Your task to perform on an android device: toggle sleep mode Image 0: 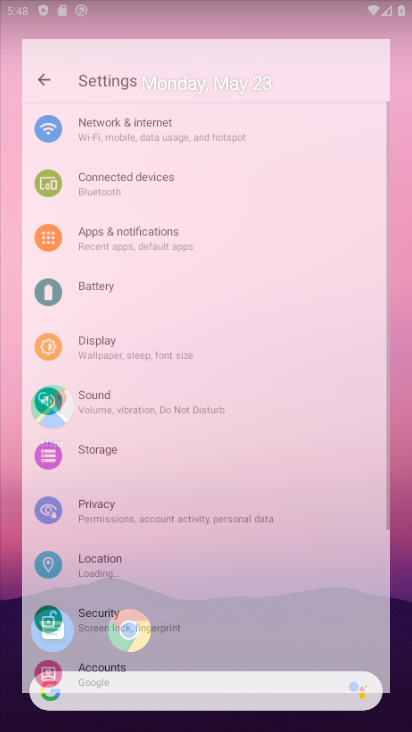
Step 0: drag from (261, 525) to (252, 64)
Your task to perform on an android device: toggle sleep mode Image 1: 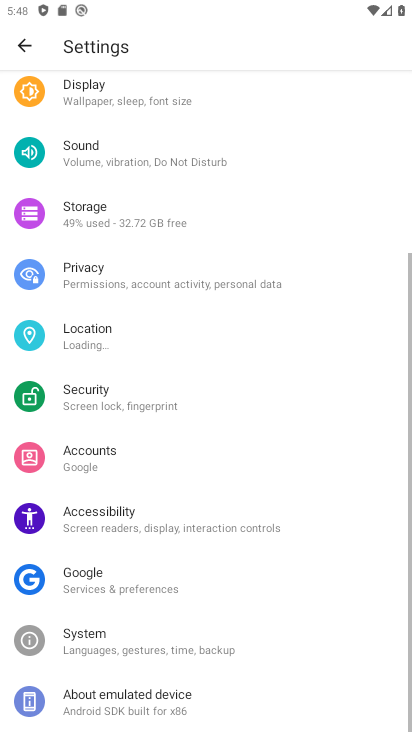
Step 1: press back button
Your task to perform on an android device: toggle sleep mode Image 2: 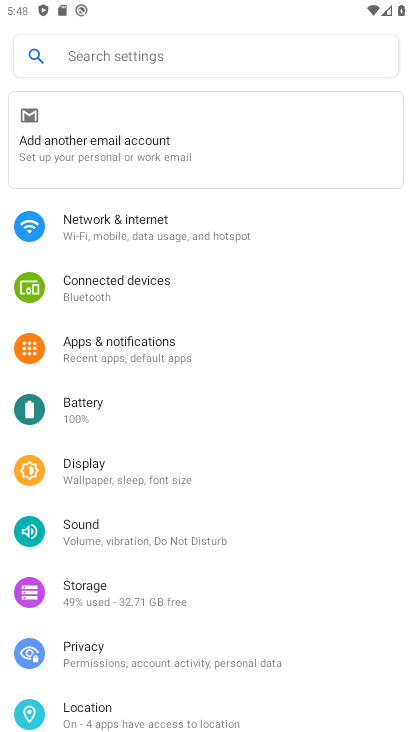
Step 2: drag from (357, 487) to (363, 53)
Your task to perform on an android device: toggle sleep mode Image 3: 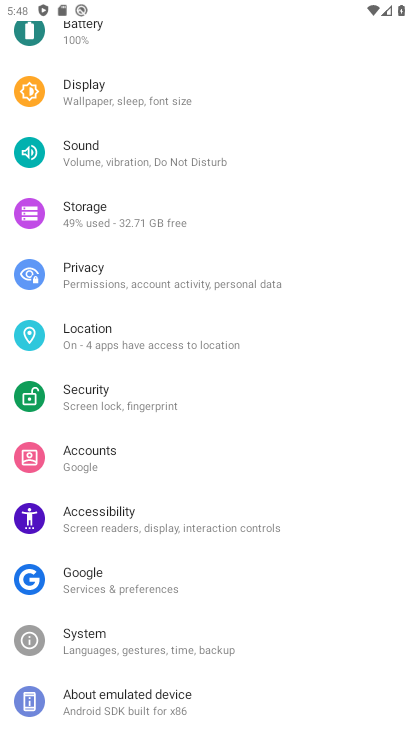
Step 3: drag from (340, 115) to (328, 568)
Your task to perform on an android device: toggle sleep mode Image 4: 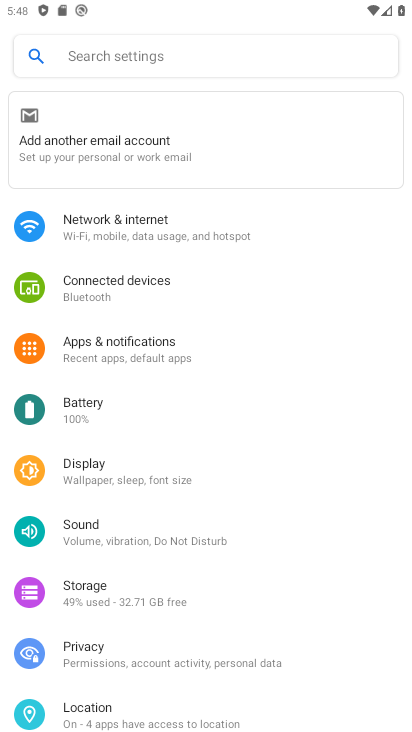
Step 4: click (170, 221)
Your task to perform on an android device: toggle sleep mode Image 5: 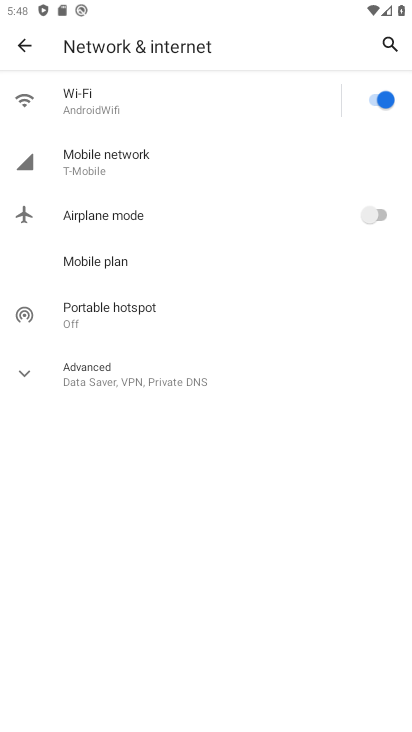
Step 5: click (25, 373)
Your task to perform on an android device: toggle sleep mode Image 6: 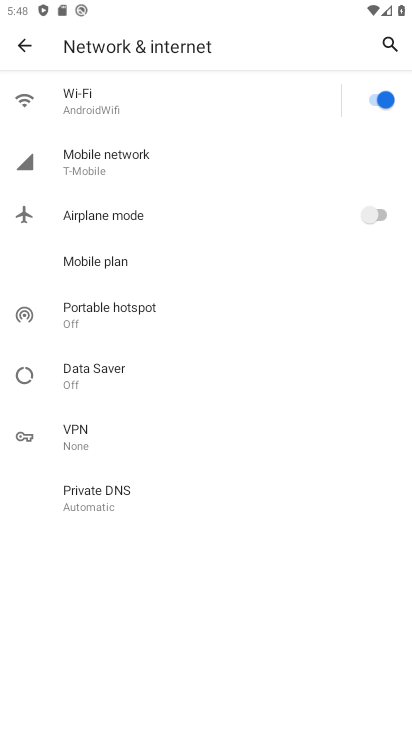
Step 6: click (15, 41)
Your task to perform on an android device: toggle sleep mode Image 7: 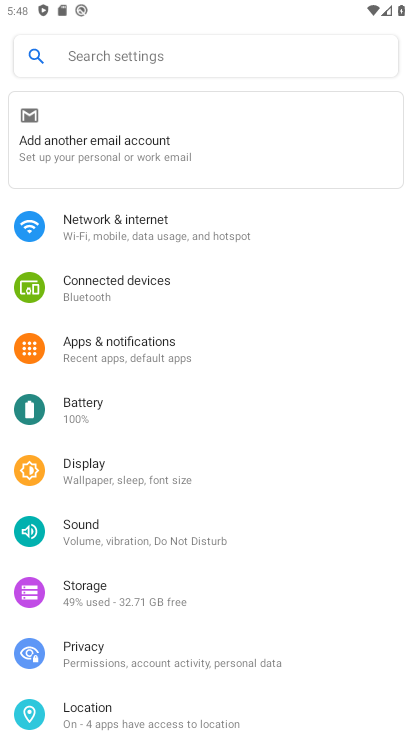
Step 7: drag from (262, 549) to (260, 167)
Your task to perform on an android device: toggle sleep mode Image 8: 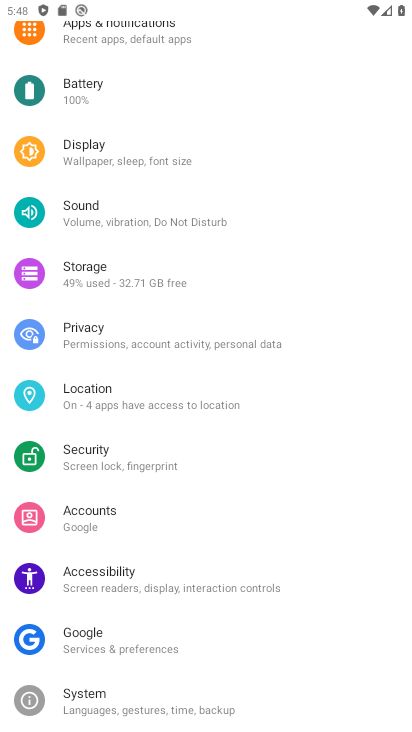
Step 8: drag from (222, 159) to (237, 467)
Your task to perform on an android device: toggle sleep mode Image 9: 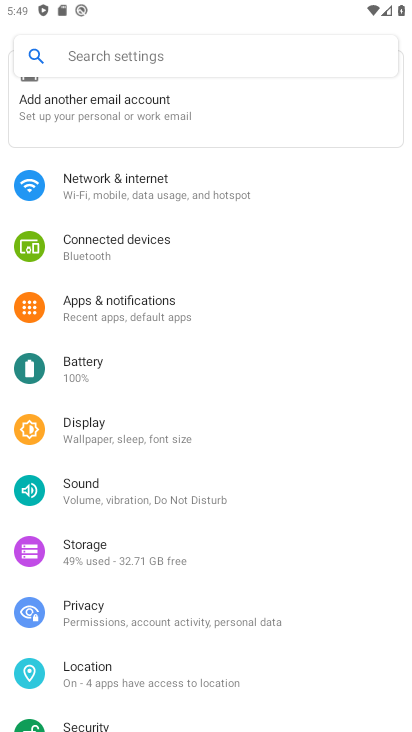
Step 9: drag from (244, 472) to (226, 169)
Your task to perform on an android device: toggle sleep mode Image 10: 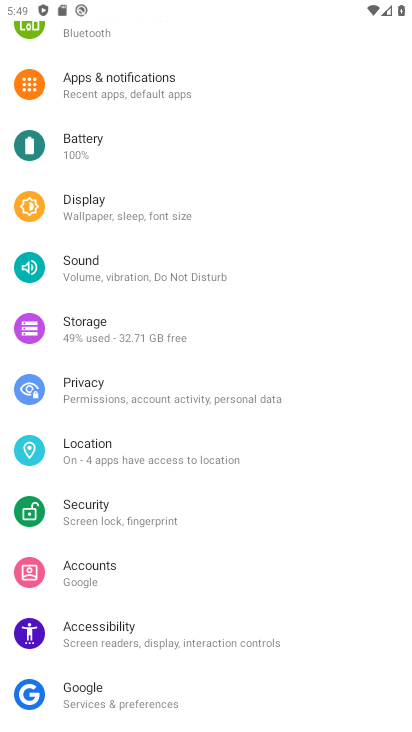
Step 10: click (158, 217)
Your task to perform on an android device: toggle sleep mode Image 11: 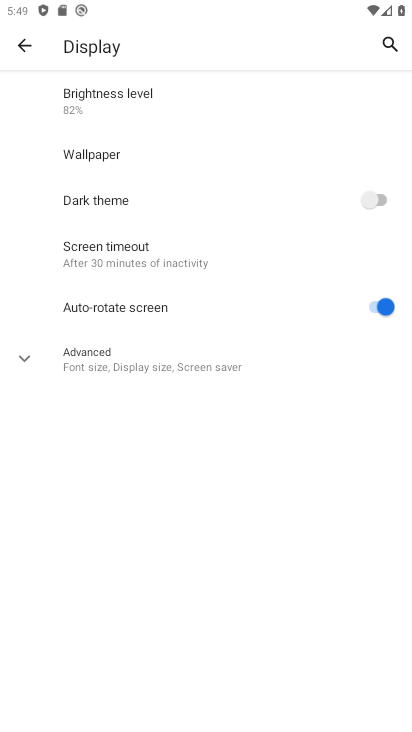
Step 11: click (26, 362)
Your task to perform on an android device: toggle sleep mode Image 12: 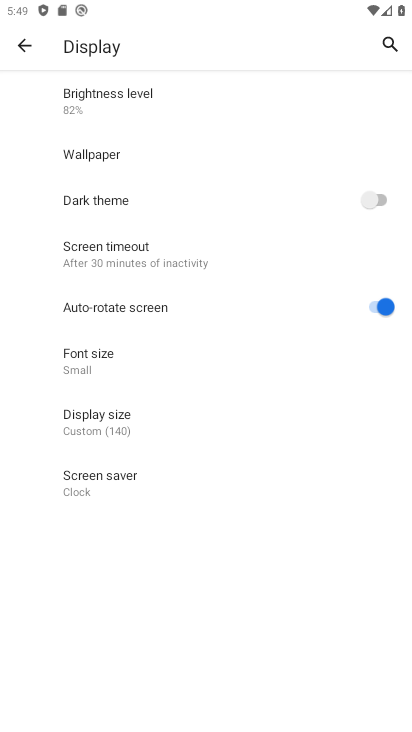
Step 12: task complete